Your task to perform on an android device: snooze an email in the gmail app Image 0: 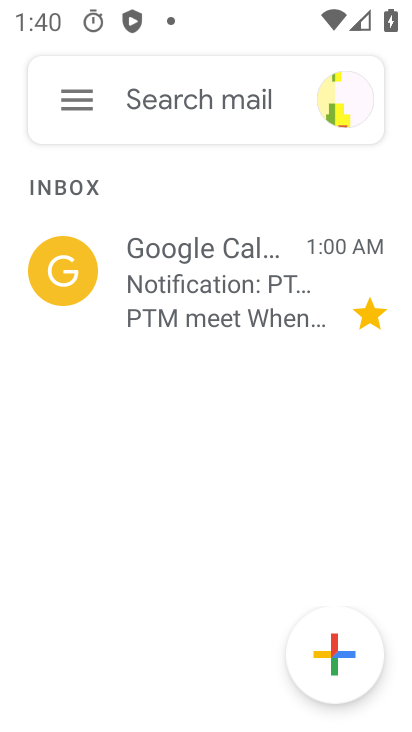
Step 0: click (70, 89)
Your task to perform on an android device: snooze an email in the gmail app Image 1: 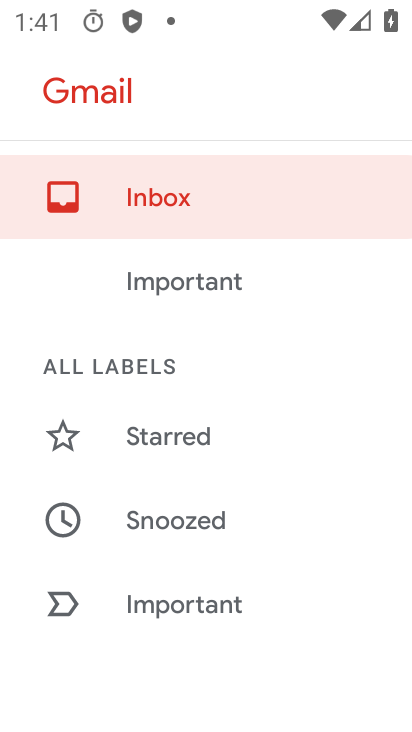
Step 1: click (215, 526)
Your task to perform on an android device: snooze an email in the gmail app Image 2: 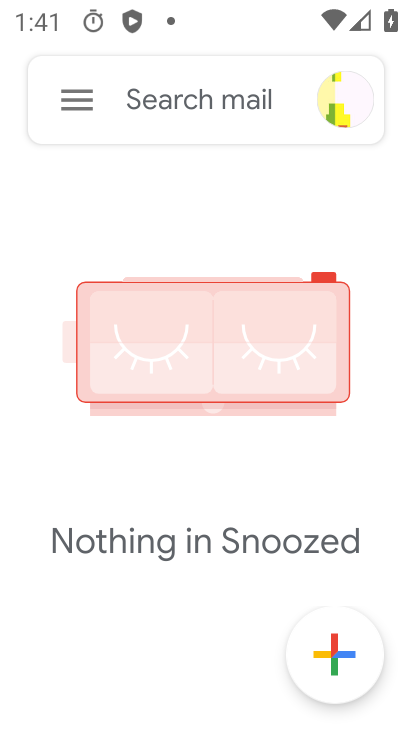
Step 2: task complete